Your task to perform on an android device: open the mobile data screen to see how much data has been used Image 0: 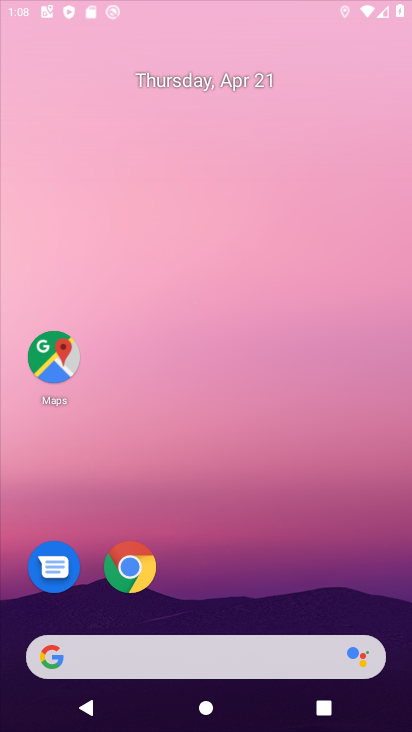
Step 0: click (132, 555)
Your task to perform on an android device: open the mobile data screen to see how much data has been used Image 1: 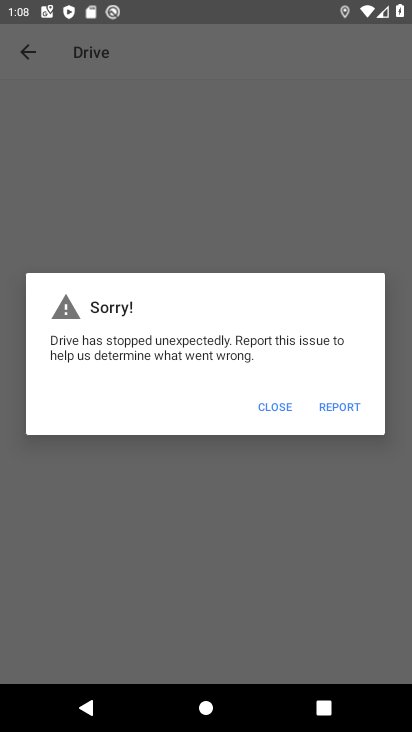
Step 1: press back button
Your task to perform on an android device: open the mobile data screen to see how much data has been used Image 2: 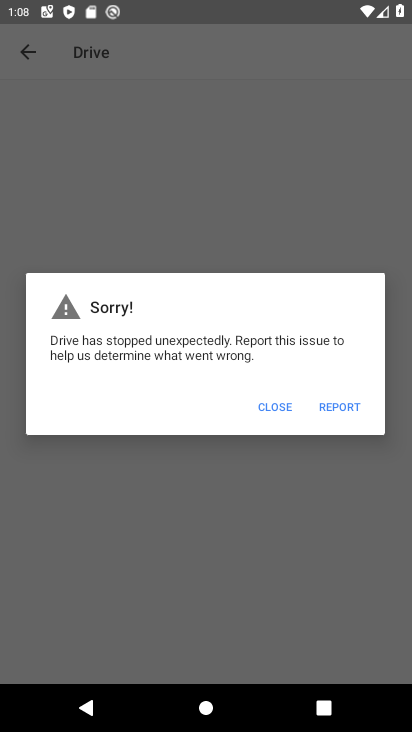
Step 2: press back button
Your task to perform on an android device: open the mobile data screen to see how much data has been used Image 3: 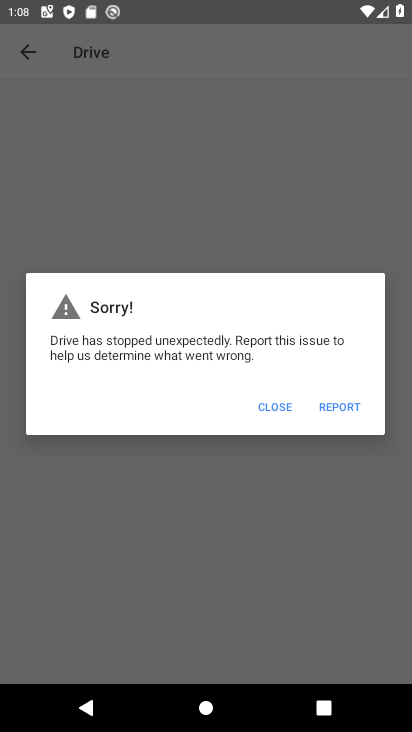
Step 3: click (269, 405)
Your task to perform on an android device: open the mobile data screen to see how much data has been used Image 4: 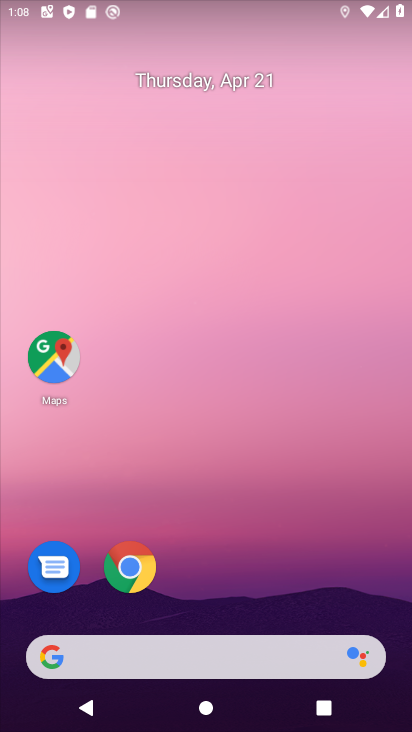
Step 4: drag from (238, 524) to (332, 19)
Your task to perform on an android device: open the mobile data screen to see how much data has been used Image 5: 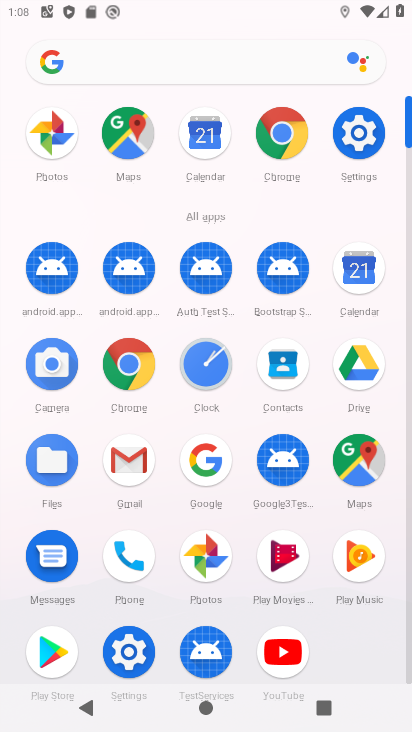
Step 5: click (347, 129)
Your task to perform on an android device: open the mobile data screen to see how much data has been used Image 6: 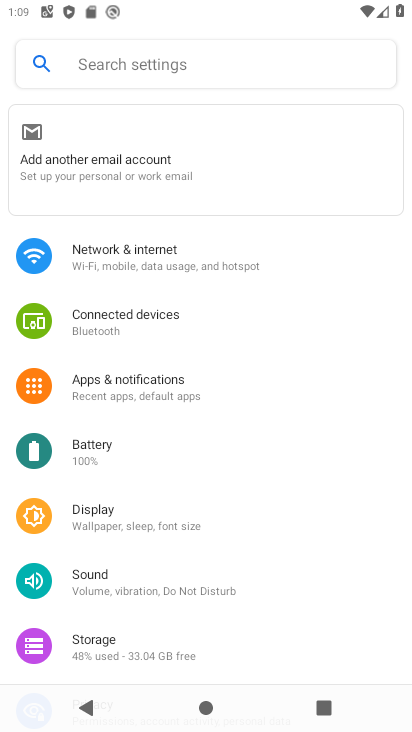
Step 6: click (223, 263)
Your task to perform on an android device: open the mobile data screen to see how much data has been used Image 7: 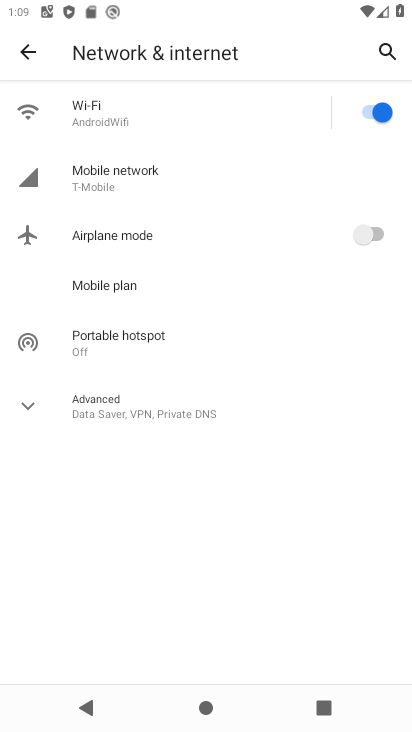
Step 7: click (109, 176)
Your task to perform on an android device: open the mobile data screen to see how much data has been used Image 8: 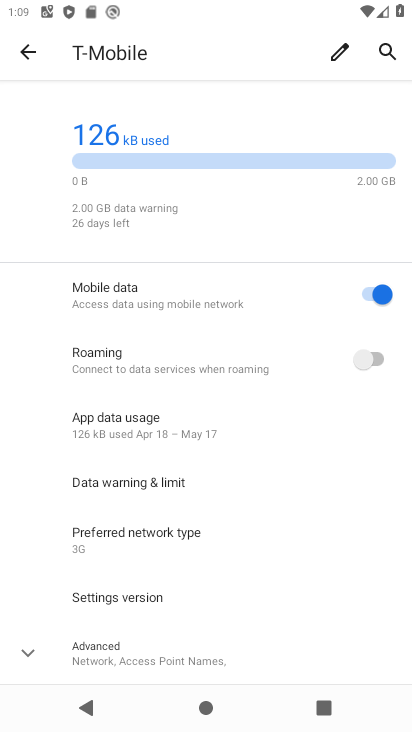
Step 8: click (128, 431)
Your task to perform on an android device: open the mobile data screen to see how much data has been used Image 9: 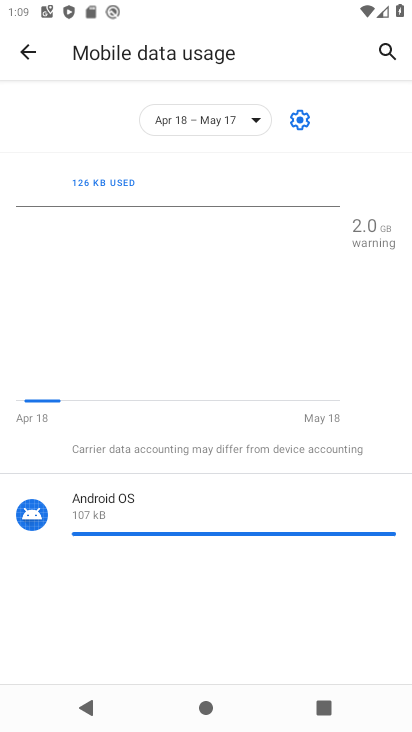
Step 9: task complete